Your task to perform on an android device: turn on the 24-hour format for clock Image 0: 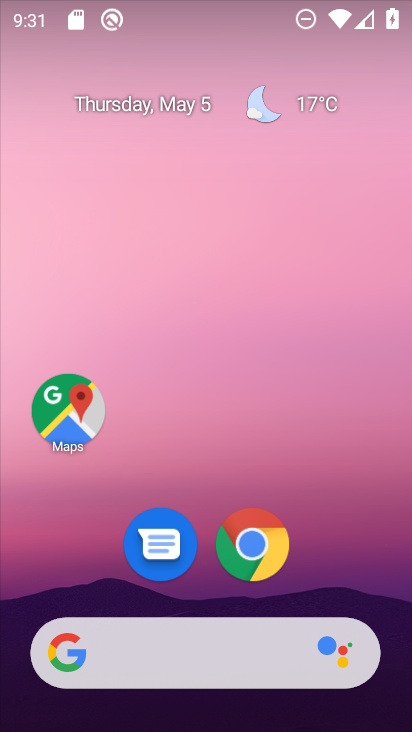
Step 0: drag from (402, 629) to (251, 100)
Your task to perform on an android device: turn on the 24-hour format for clock Image 1: 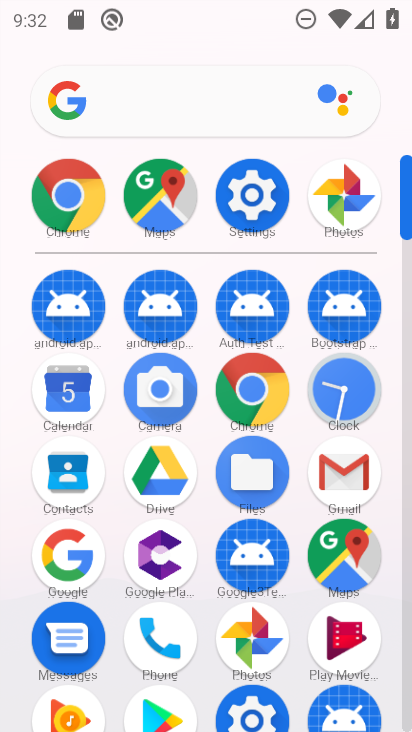
Step 1: click (345, 391)
Your task to perform on an android device: turn on the 24-hour format for clock Image 2: 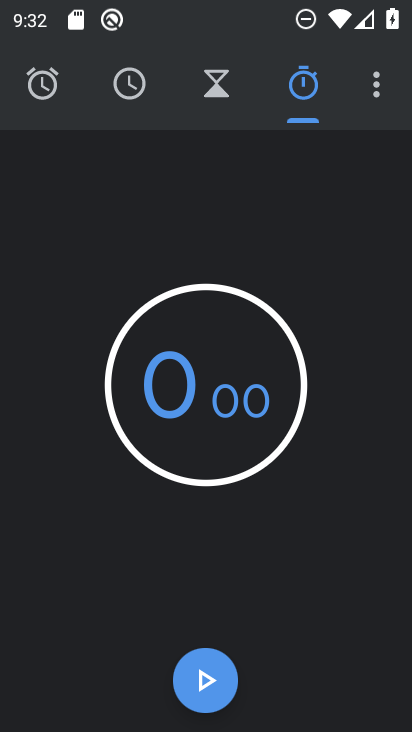
Step 2: click (376, 79)
Your task to perform on an android device: turn on the 24-hour format for clock Image 3: 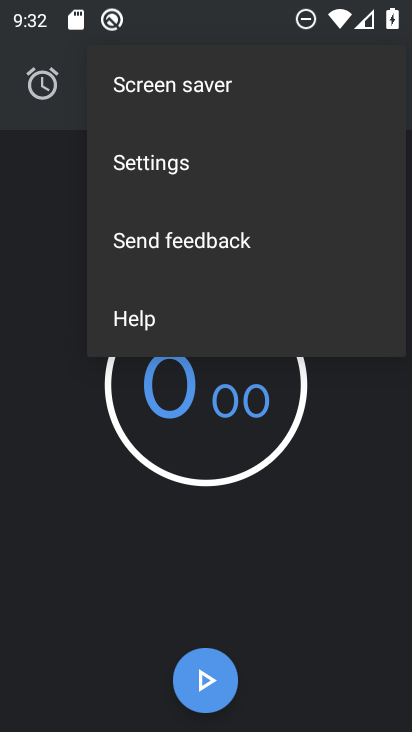
Step 3: click (282, 149)
Your task to perform on an android device: turn on the 24-hour format for clock Image 4: 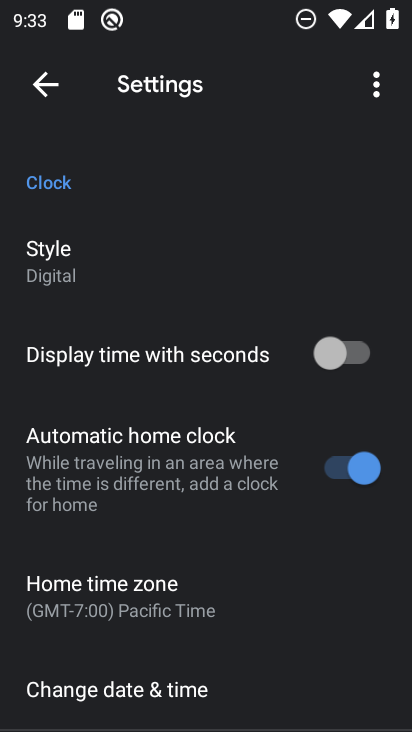
Step 4: drag from (247, 683) to (231, 224)
Your task to perform on an android device: turn on the 24-hour format for clock Image 5: 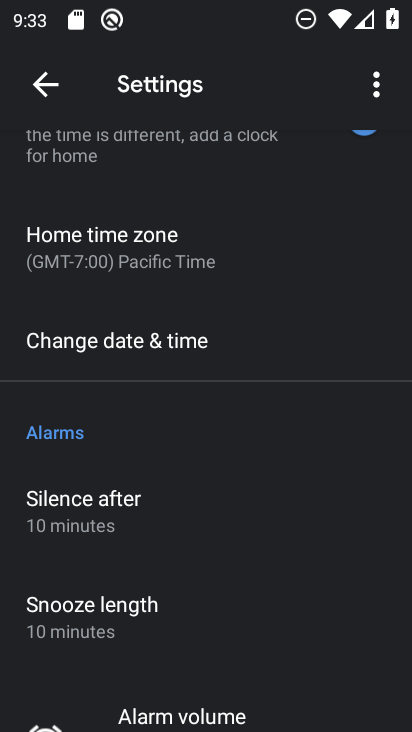
Step 5: click (193, 349)
Your task to perform on an android device: turn on the 24-hour format for clock Image 6: 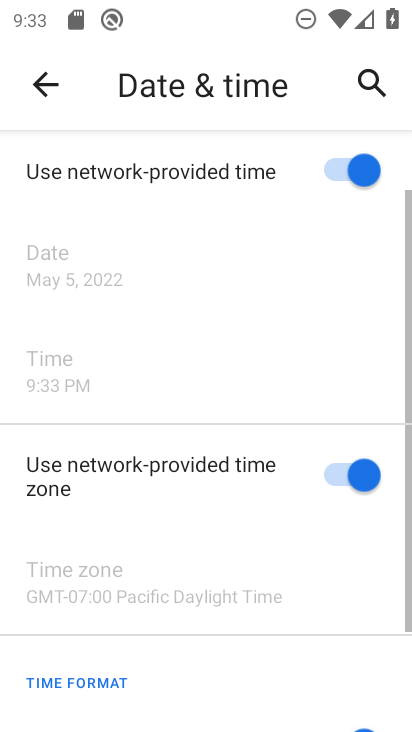
Step 6: task complete